Your task to perform on an android device: toggle wifi Image 0: 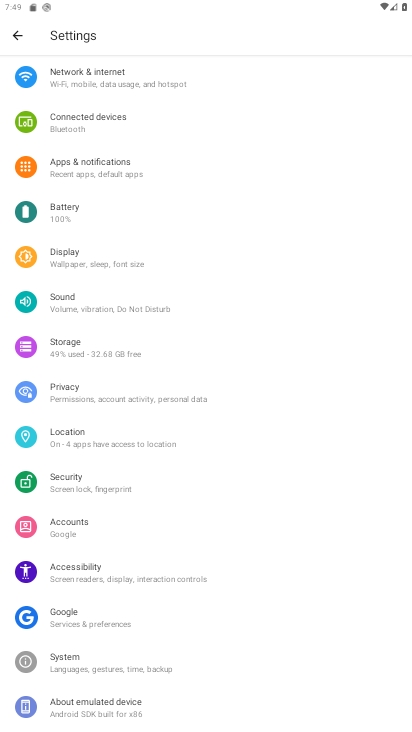
Step 0: click (112, 77)
Your task to perform on an android device: toggle wifi Image 1: 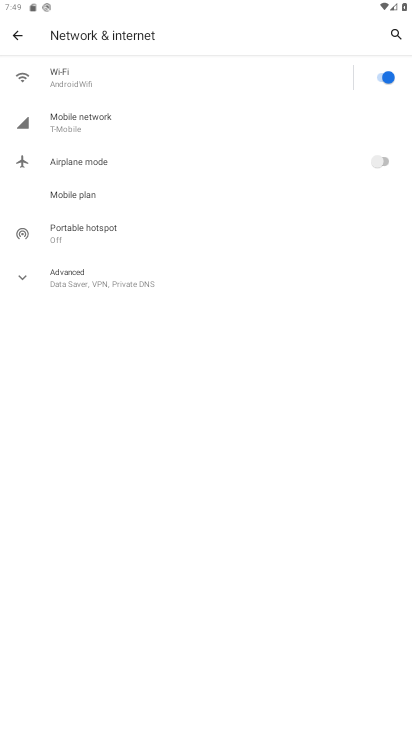
Step 1: click (366, 70)
Your task to perform on an android device: toggle wifi Image 2: 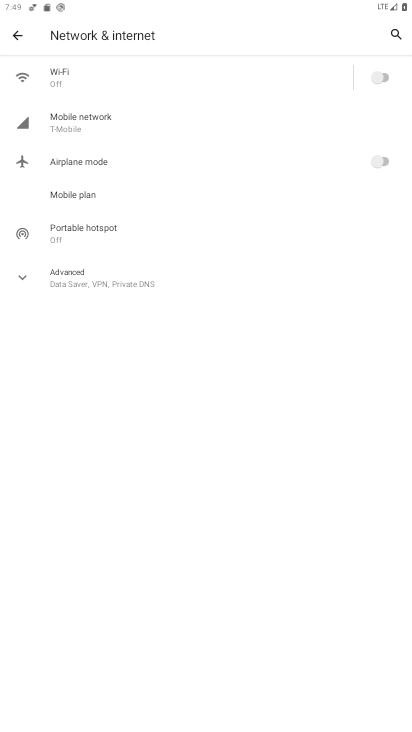
Step 2: task complete